Your task to perform on an android device: Open Youtube and go to the subscriptions tab Image 0: 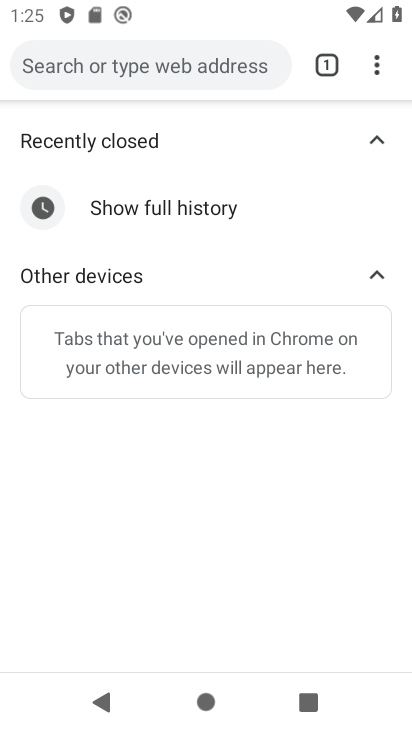
Step 0: press home button
Your task to perform on an android device: Open Youtube and go to the subscriptions tab Image 1: 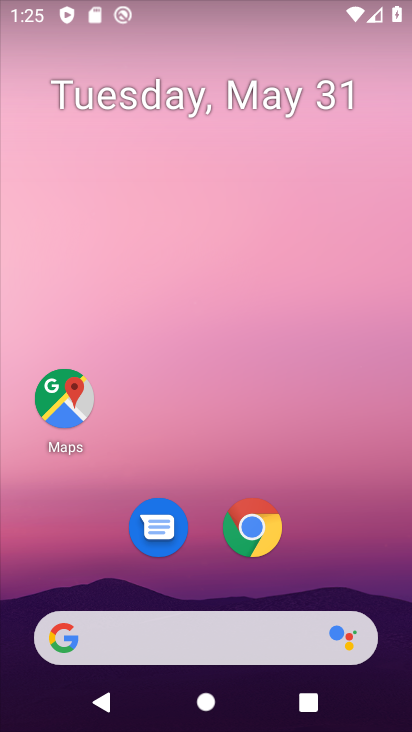
Step 1: drag from (347, 551) to (344, 57)
Your task to perform on an android device: Open Youtube and go to the subscriptions tab Image 2: 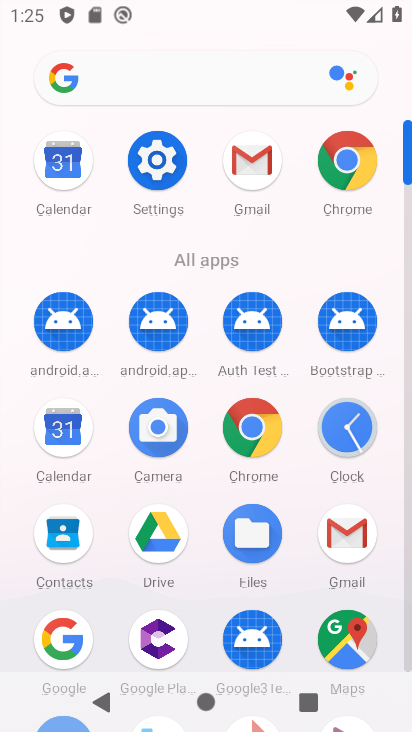
Step 2: drag from (393, 579) to (387, 204)
Your task to perform on an android device: Open Youtube and go to the subscriptions tab Image 3: 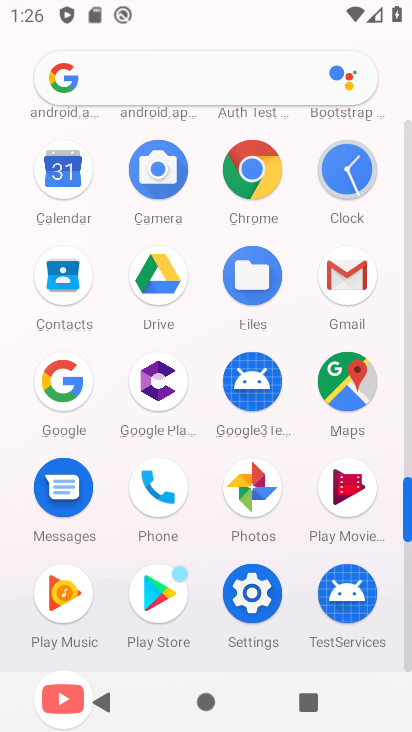
Step 3: drag from (390, 636) to (399, 350)
Your task to perform on an android device: Open Youtube and go to the subscriptions tab Image 4: 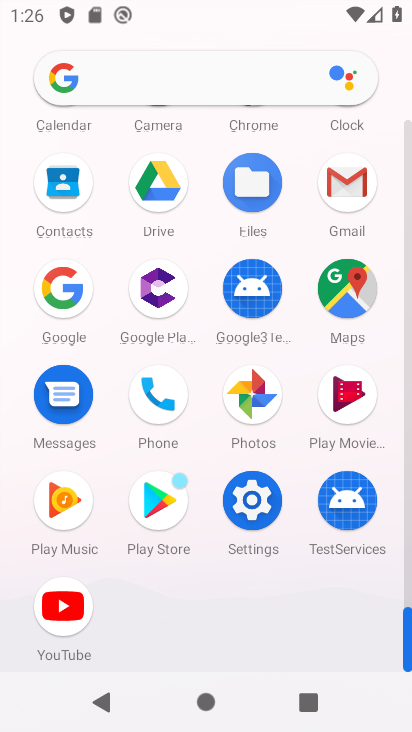
Step 4: click (65, 610)
Your task to perform on an android device: Open Youtube and go to the subscriptions tab Image 5: 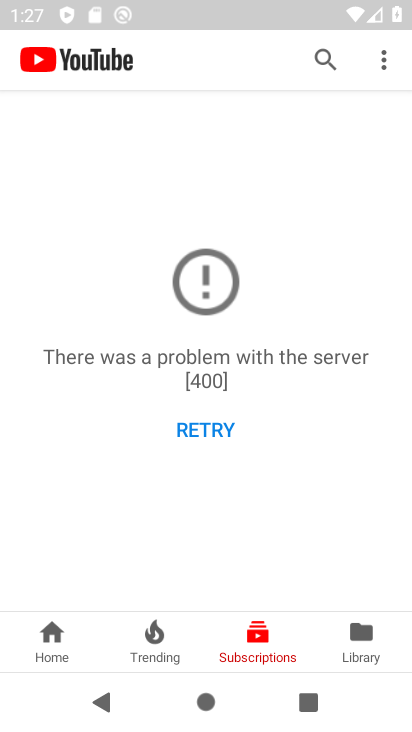
Step 5: task complete